Your task to perform on an android device: turn off data saver in the chrome app Image 0: 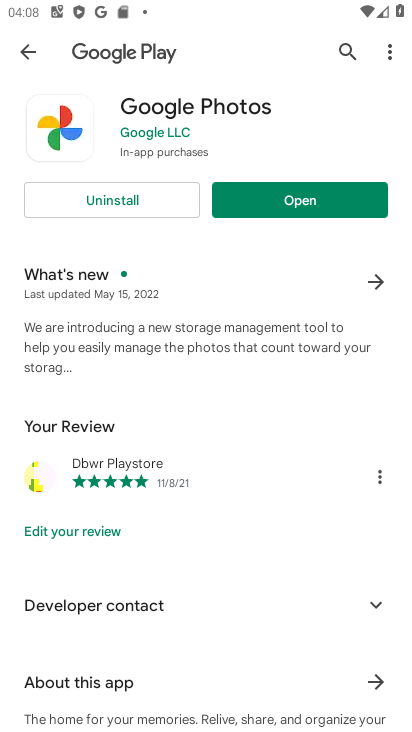
Step 0: press home button
Your task to perform on an android device: turn off data saver in the chrome app Image 1: 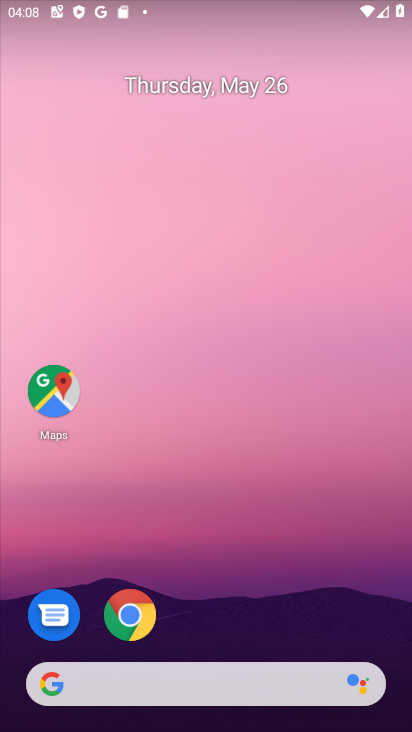
Step 1: click (135, 618)
Your task to perform on an android device: turn off data saver in the chrome app Image 2: 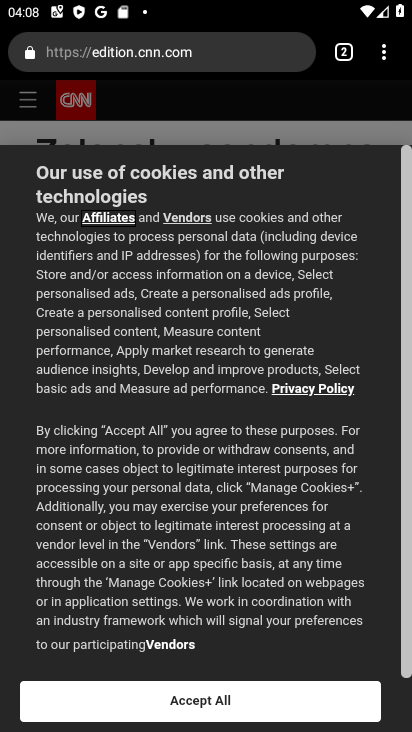
Step 2: click (389, 57)
Your task to perform on an android device: turn off data saver in the chrome app Image 3: 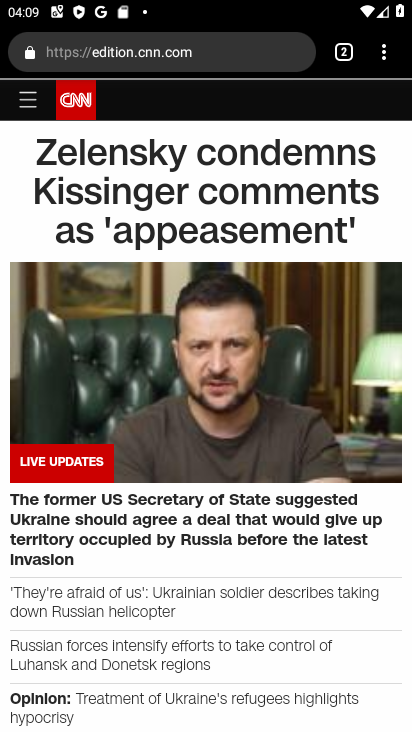
Step 3: click (384, 59)
Your task to perform on an android device: turn off data saver in the chrome app Image 4: 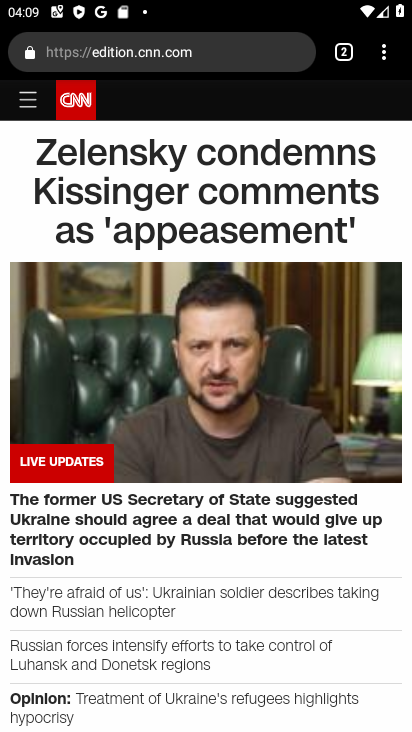
Step 4: click (384, 56)
Your task to perform on an android device: turn off data saver in the chrome app Image 5: 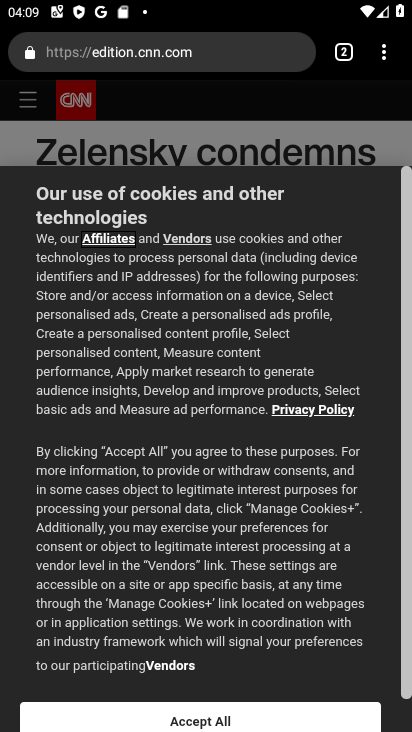
Step 5: click (383, 58)
Your task to perform on an android device: turn off data saver in the chrome app Image 6: 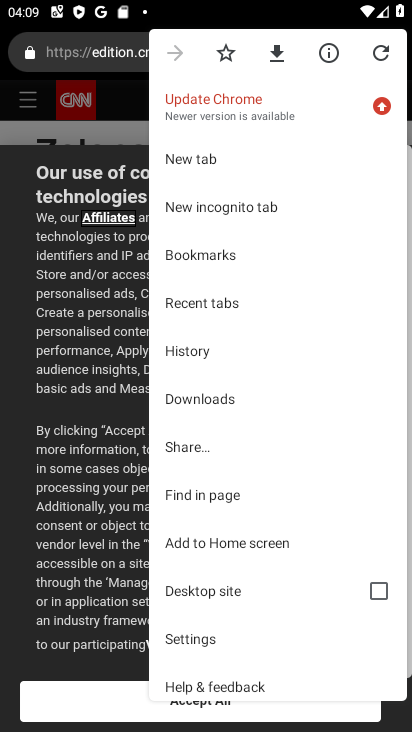
Step 6: click (200, 636)
Your task to perform on an android device: turn off data saver in the chrome app Image 7: 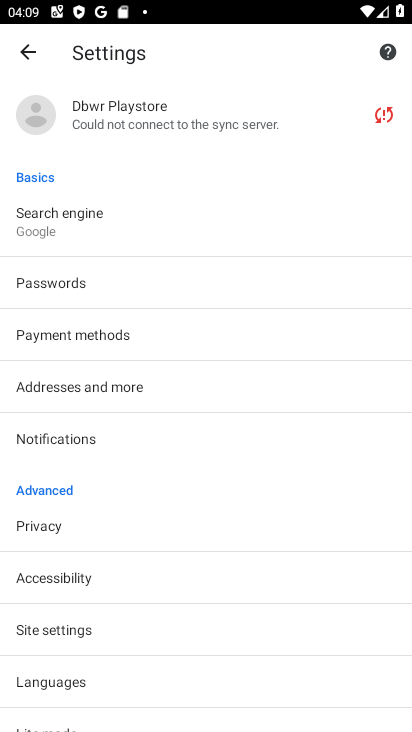
Step 7: drag from (69, 685) to (74, 386)
Your task to perform on an android device: turn off data saver in the chrome app Image 8: 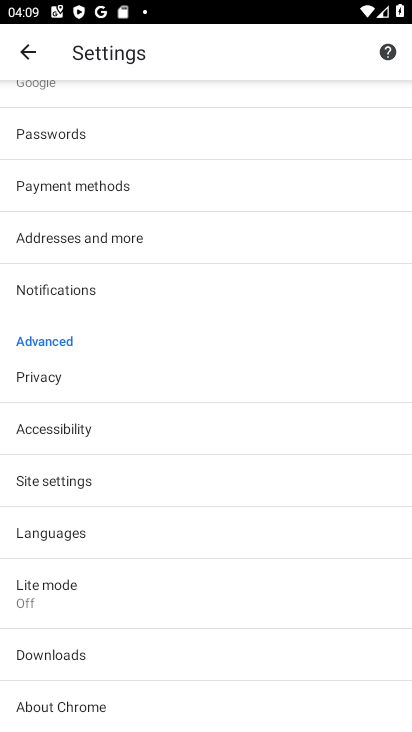
Step 8: click (68, 601)
Your task to perform on an android device: turn off data saver in the chrome app Image 9: 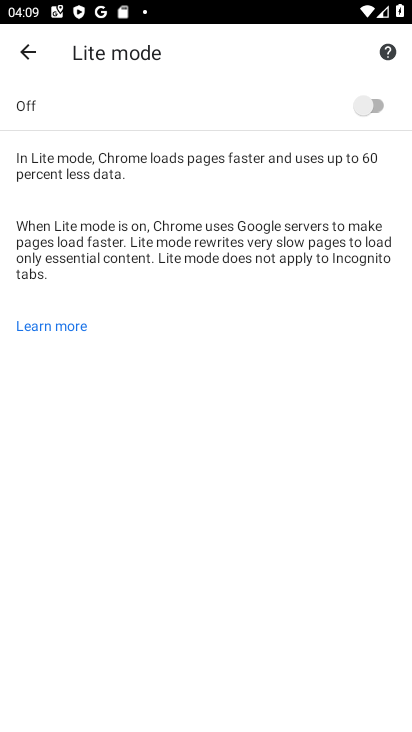
Step 9: task complete